Your task to perform on an android device: turn off priority inbox in the gmail app Image 0: 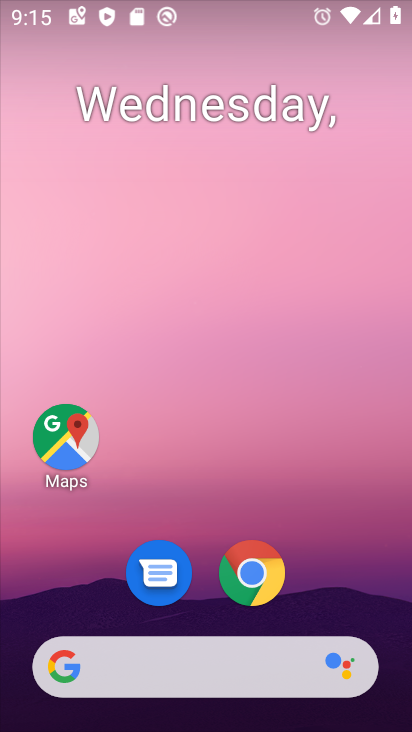
Step 0: drag from (257, 628) to (266, 189)
Your task to perform on an android device: turn off priority inbox in the gmail app Image 1: 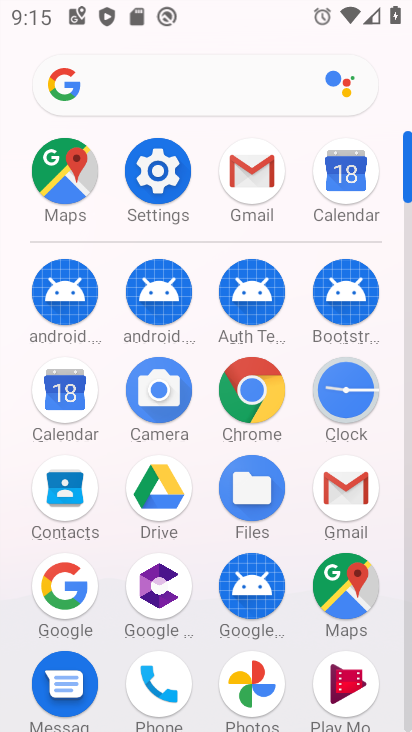
Step 1: click (348, 508)
Your task to perform on an android device: turn off priority inbox in the gmail app Image 2: 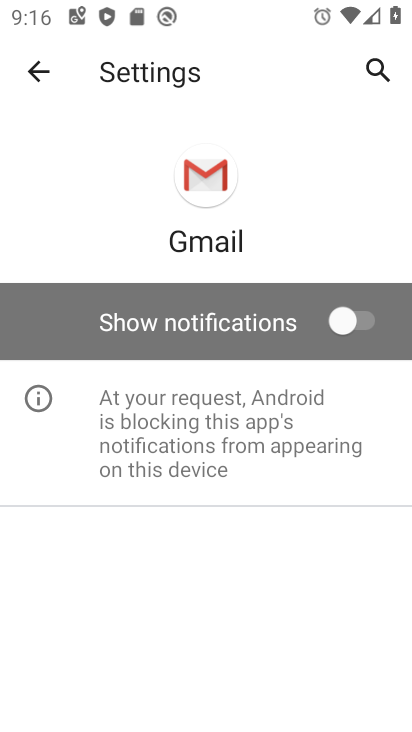
Step 2: click (54, 77)
Your task to perform on an android device: turn off priority inbox in the gmail app Image 3: 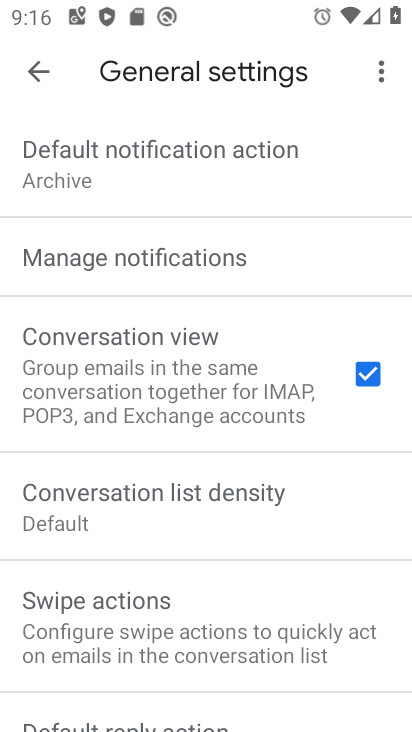
Step 3: click (55, 65)
Your task to perform on an android device: turn off priority inbox in the gmail app Image 4: 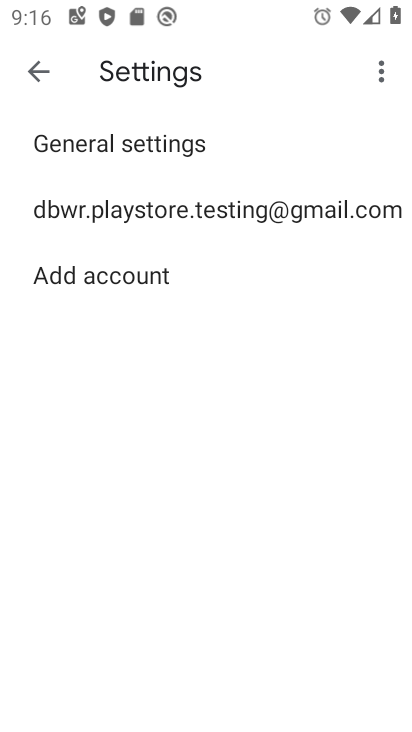
Step 4: click (141, 212)
Your task to perform on an android device: turn off priority inbox in the gmail app Image 5: 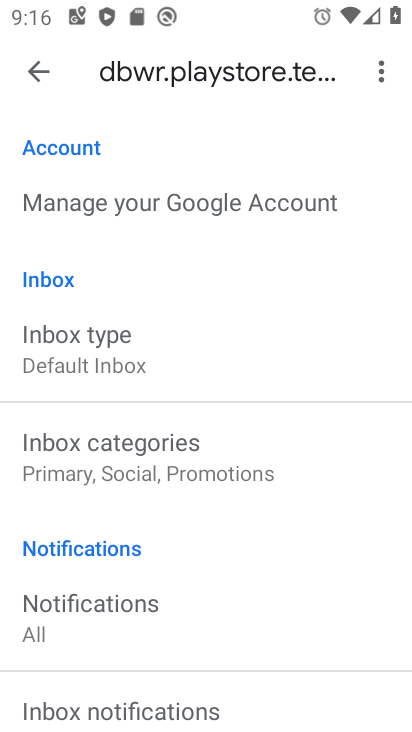
Step 5: drag from (188, 534) to (181, 428)
Your task to perform on an android device: turn off priority inbox in the gmail app Image 6: 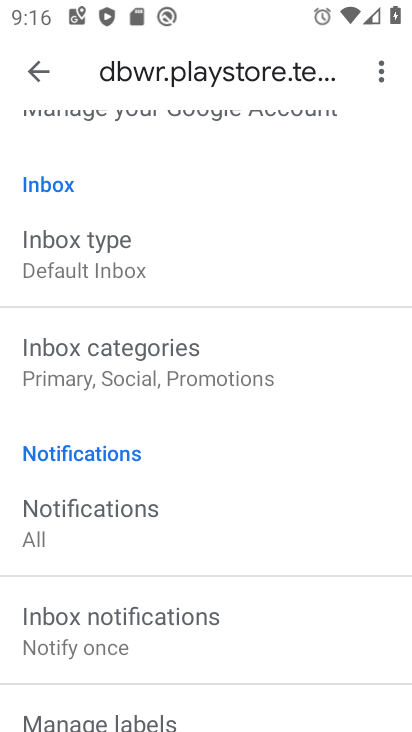
Step 6: drag from (159, 290) to (158, 553)
Your task to perform on an android device: turn off priority inbox in the gmail app Image 7: 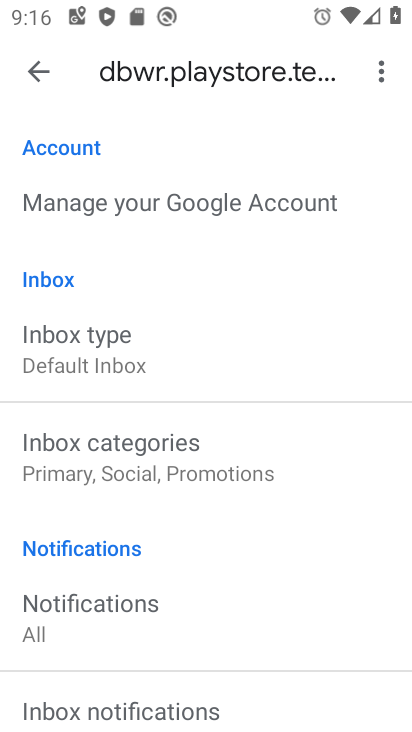
Step 7: click (133, 366)
Your task to perform on an android device: turn off priority inbox in the gmail app Image 8: 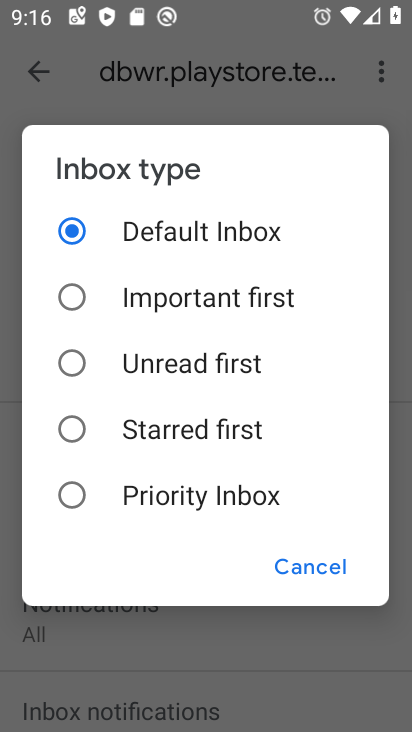
Step 8: task complete